Your task to perform on an android device: Check the weather Image 0: 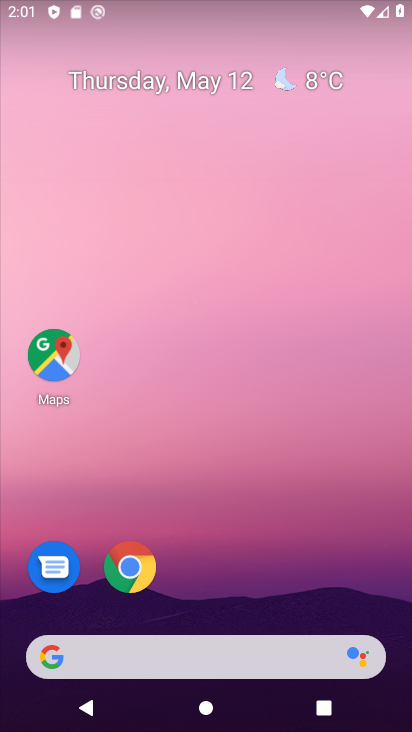
Step 0: click (324, 80)
Your task to perform on an android device: Check the weather Image 1: 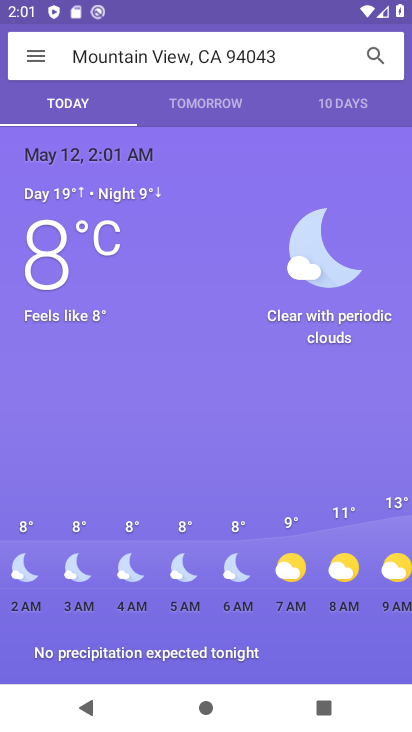
Step 1: task complete